Your task to perform on an android device: turn on translation in the chrome app Image 0: 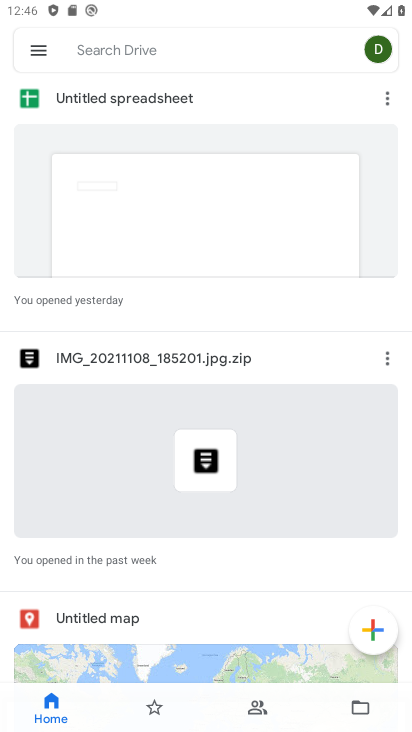
Step 0: press back button
Your task to perform on an android device: turn on translation in the chrome app Image 1: 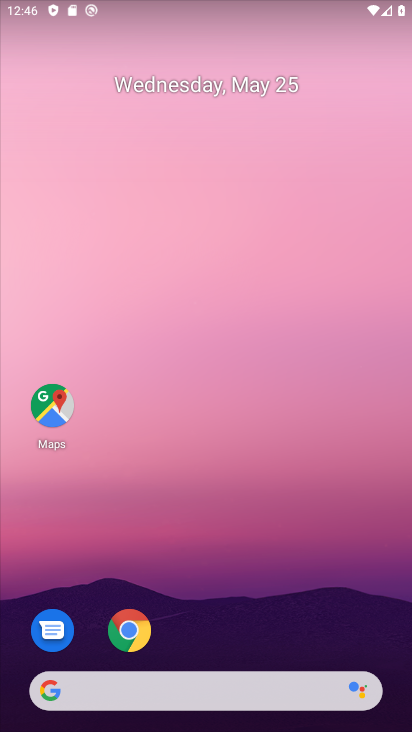
Step 1: drag from (206, 624) to (115, 33)
Your task to perform on an android device: turn on translation in the chrome app Image 2: 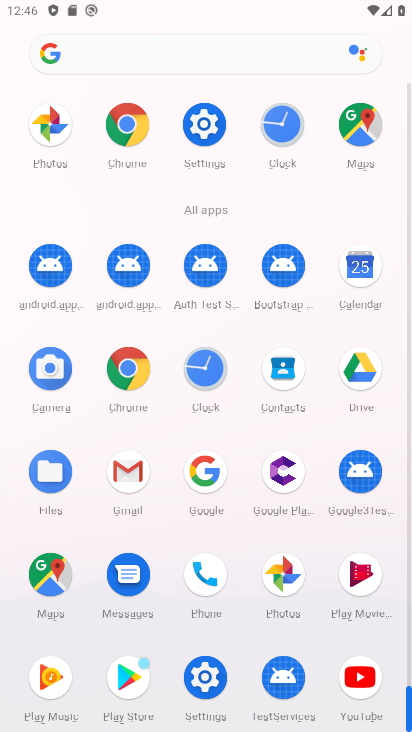
Step 2: click (136, 137)
Your task to perform on an android device: turn on translation in the chrome app Image 3: 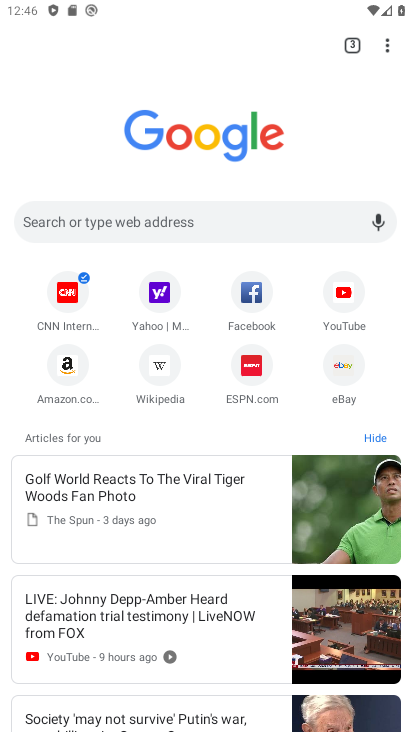
Step 3: drag from (383, 45) to (225, 430)
Your task to perform on an android device: turn on translation in the chrome app Image 4: 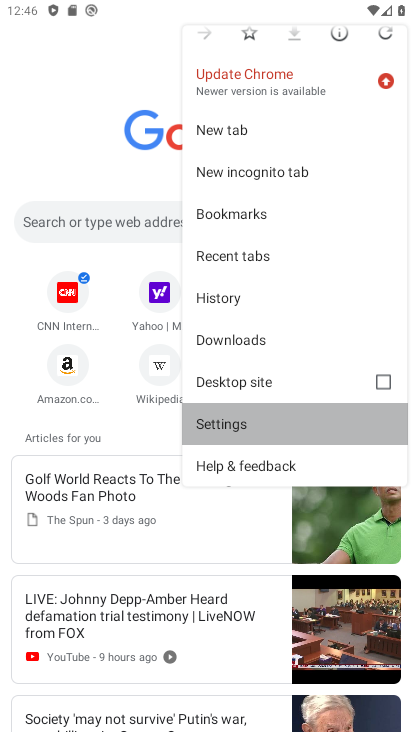
Step 4: click (227, 428)
Your task to perform on an android device: turn on translation in the chrome app Image 5: 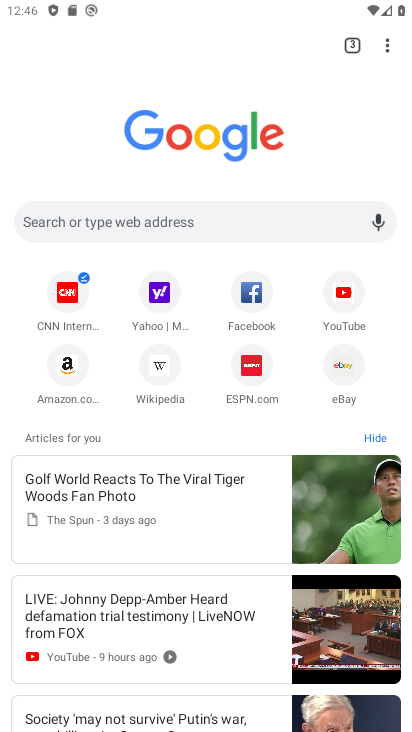
Step 5: click (231, 425)
Your task to perform on an android device: turn on translation in the chrome app Image 6: 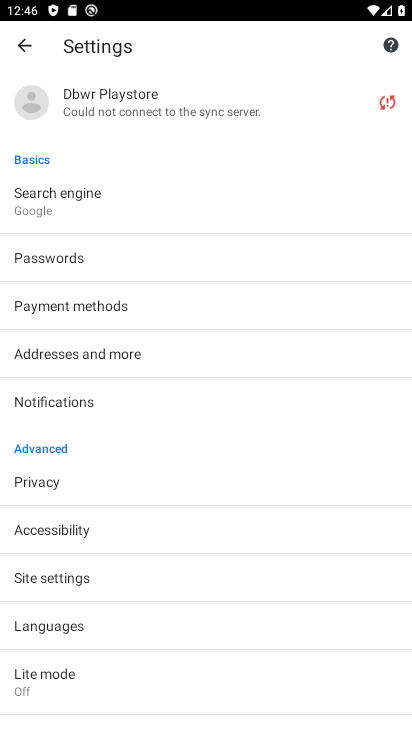
Step 6: drag from (82, 575) to (86, 157)
Your task to perform on an android device: turn on translation in the chrome app Image 7: 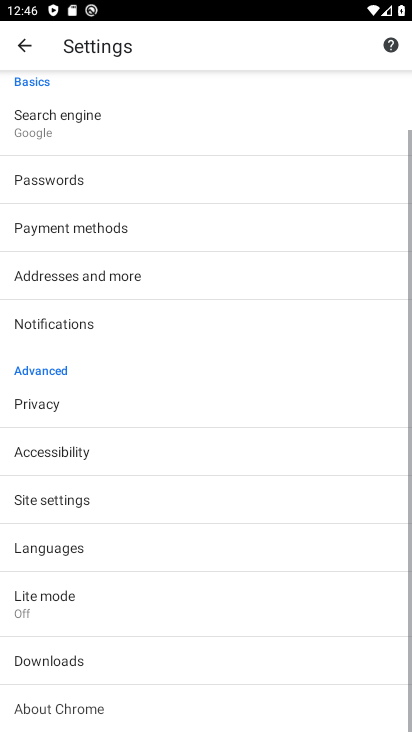
Step 7: drag from (116, 444) to (163, 109)
Your task to perform on an android device: turn on translation in the chrome app Image 8: 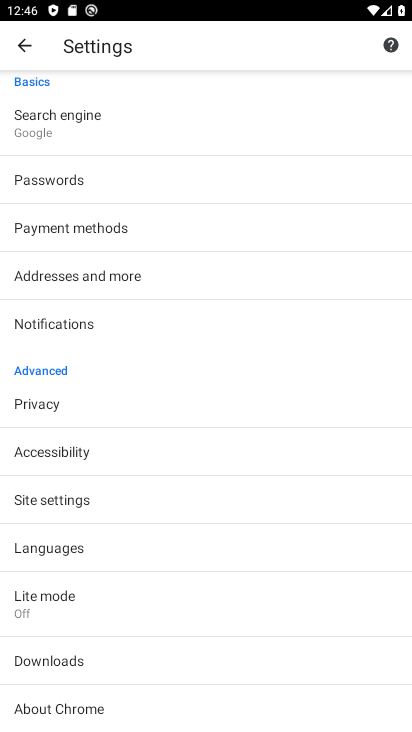
Step 8: click (54, 533)
Your task to perform on an android device: turn on translation in the chrome app Image 9: 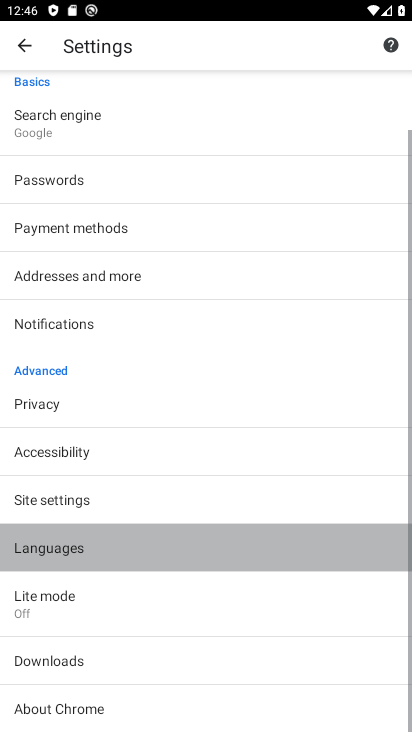
Step 9: click (53, 541)
Your task to perform on an android device: turn on translation in the chrome app Image 10: 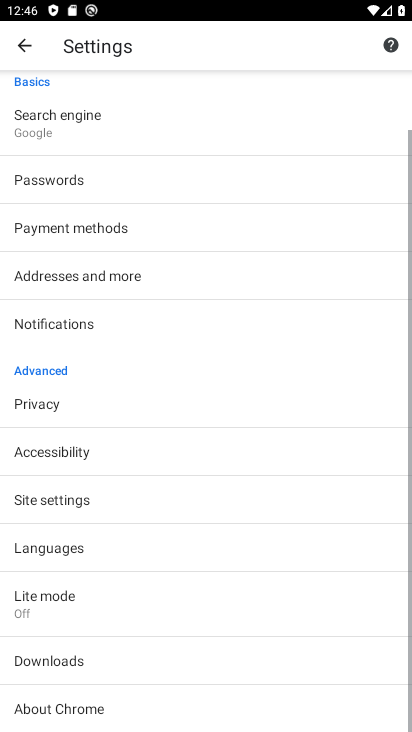
Step 10: click (53, 542)
Your task to perform on an android device: turn on translation in the chrome app Image 11: 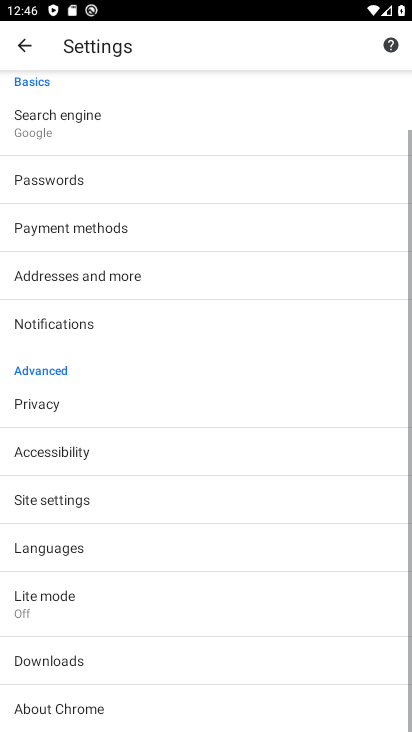
Step 11: click (54, 543)
Your task to perform on an android device: turn on translation in the chrome app Image 12: 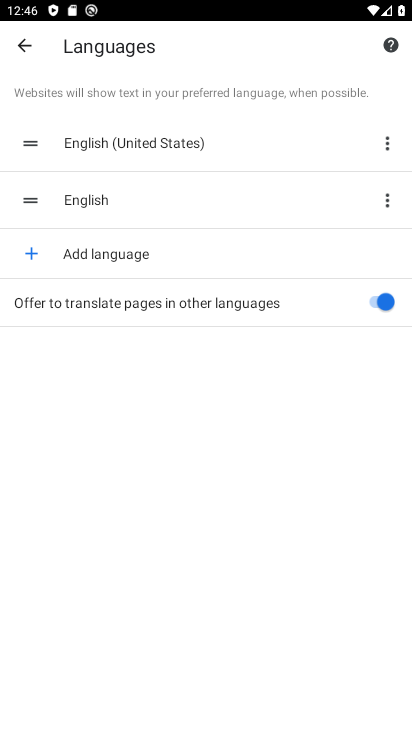
Step 12: click (49, 559)
Your task to perform on an android device: turn on translation in the chrome app Image 13: 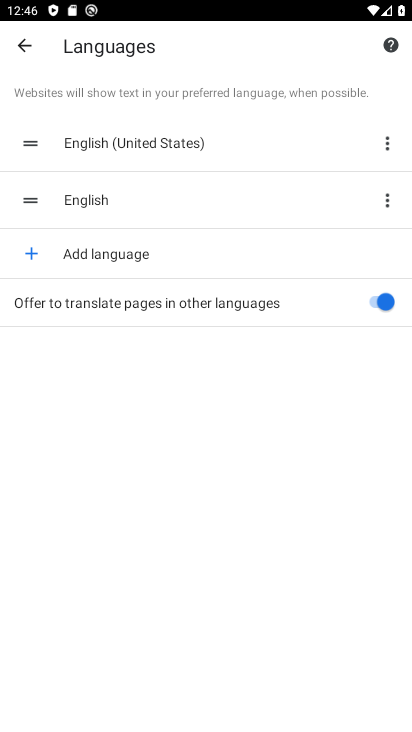
Step 13: click (47, 541)
Your task to perform on an android device: turn on translation in the chrome app Image 14: 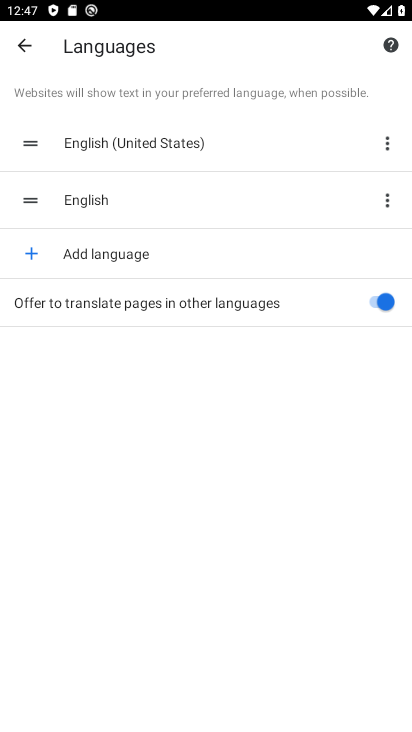
Step 14: task complete